Your task to perform on an android device: set an alarm Image 0: 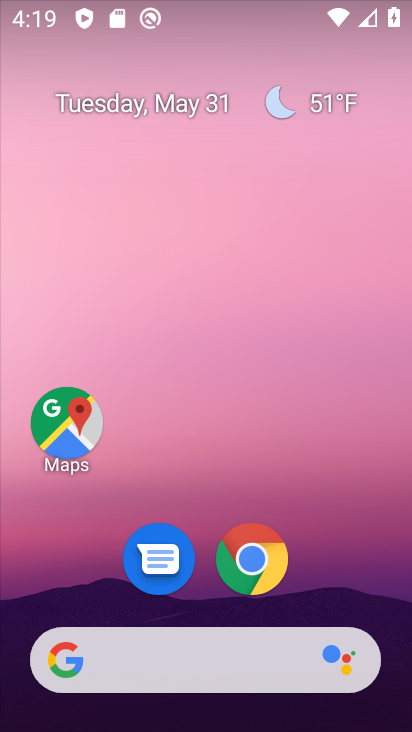
Step 0: drag from (208, 604) to (210, 0)
Your task to perform on an android device: set an alarm Image 1: 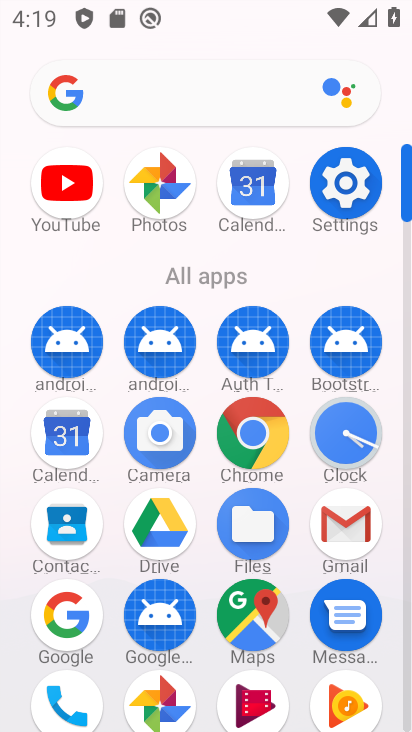
Step 1: click (361, 423)
Your task to perform on an android device: set an alarm Image 2: 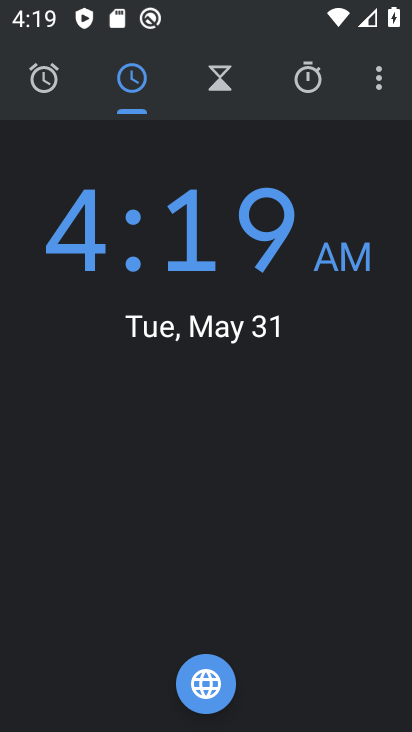
Step 2: click (58, 76)
Your task to perform on an android device: set an alarm Image 3: 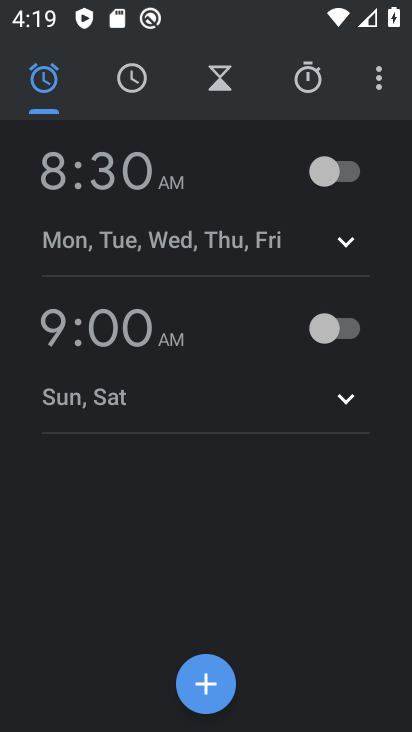
Step 3: click (193, 688)
Your task to perform on an android device: set an alarm Image 4: 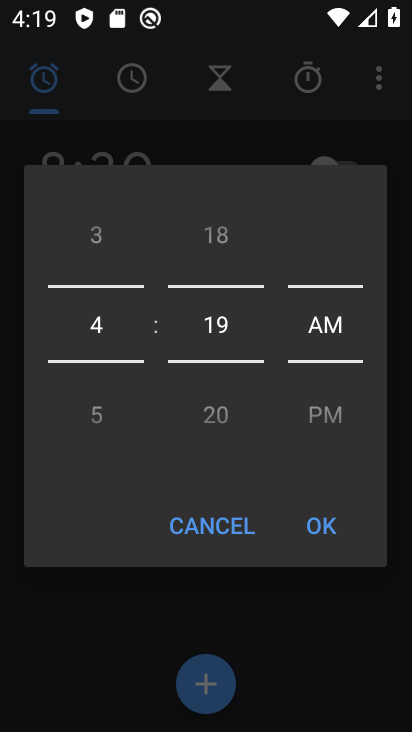
Step 4: click (307, 530)
Your task to perform on an android device: set an alarm Image 5: 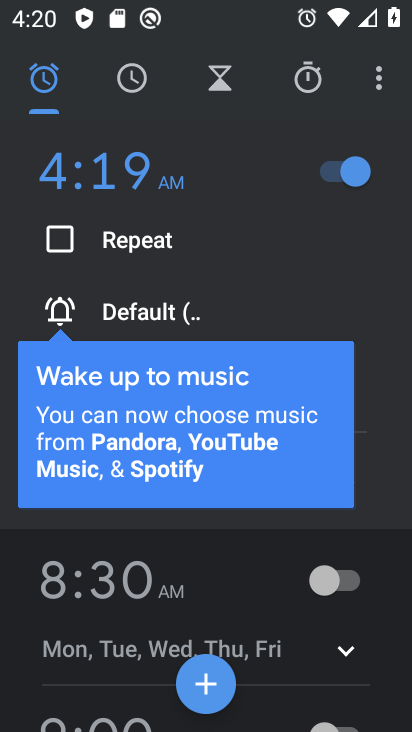
Step 5: task complete